Your task to perform on an android device: turn off translation in the chrome app Image 0: 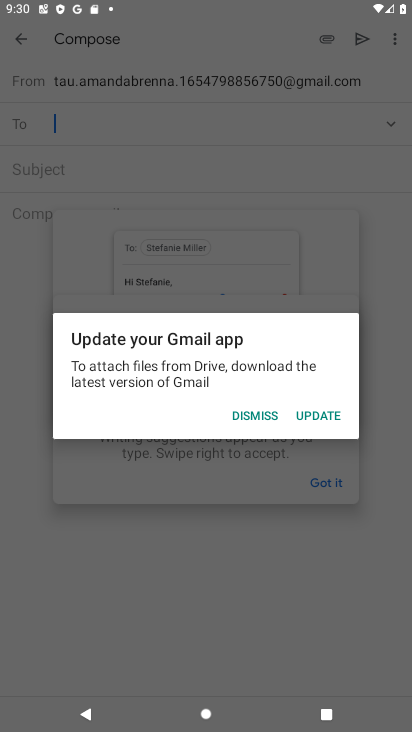
Step 0: press home button
Your task to perform on an android device: turn off translation in the chrome app Image 1: 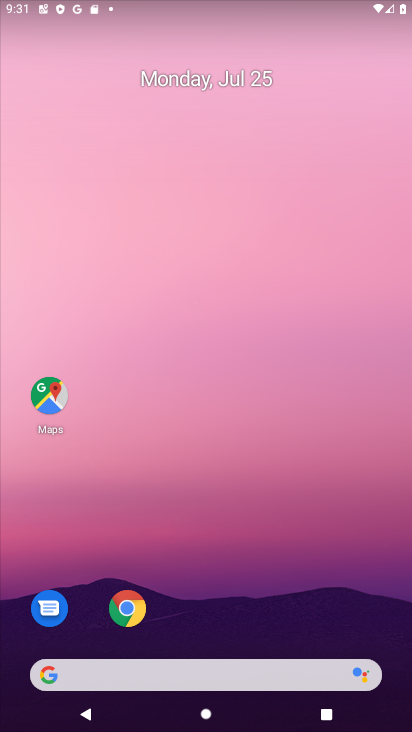
Step 1: click (132, 629)
Your task to perform on an android device: turn off translation in the chrome app Image 2: 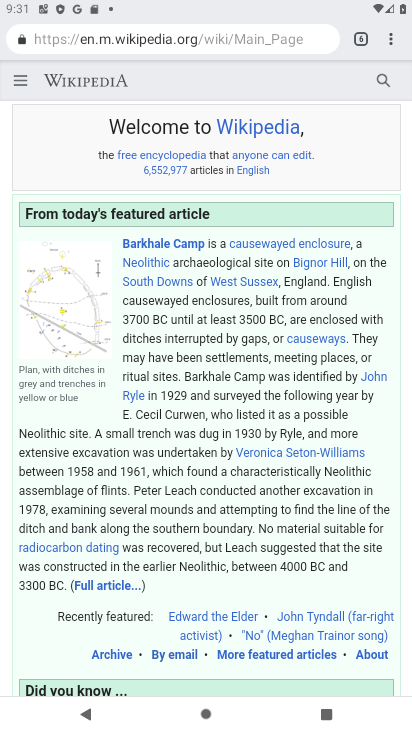
Step 2: click (403, 33)
Your task to perform on an android device: turn off translation in the chrome app Image 3: 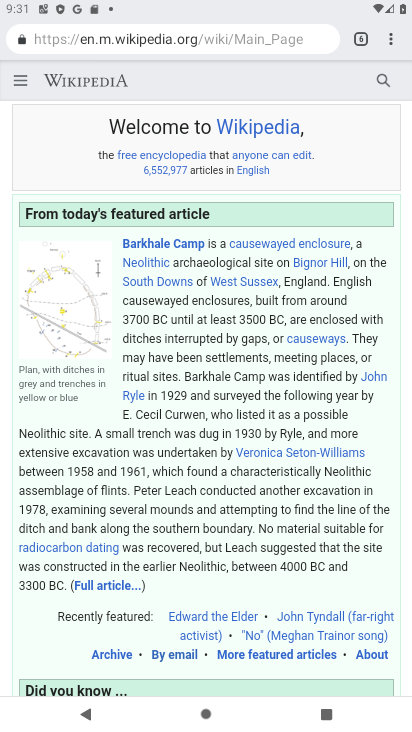
Step 3: click (393, 33)
Your task to perform on an android device: turn off translation in the chrome app Image 4: 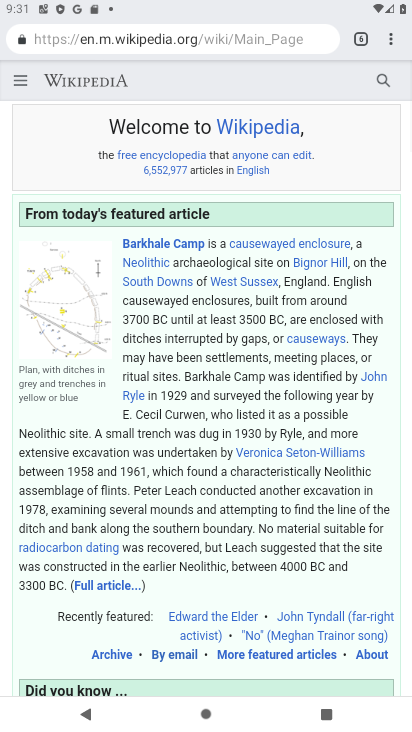
Step 4: click (399, 39)
Your task to perform on an android device: turn off translation in the chrome app Image 5: 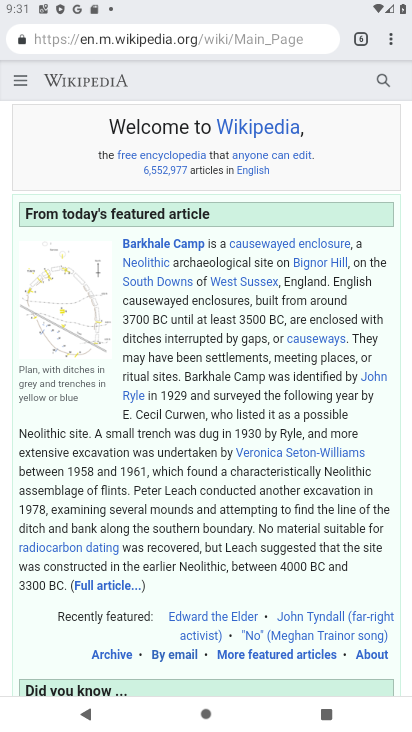
Step 5: click (399, 39)
Your task to perform on an android device: turn off translation in the chrome app Image 6: 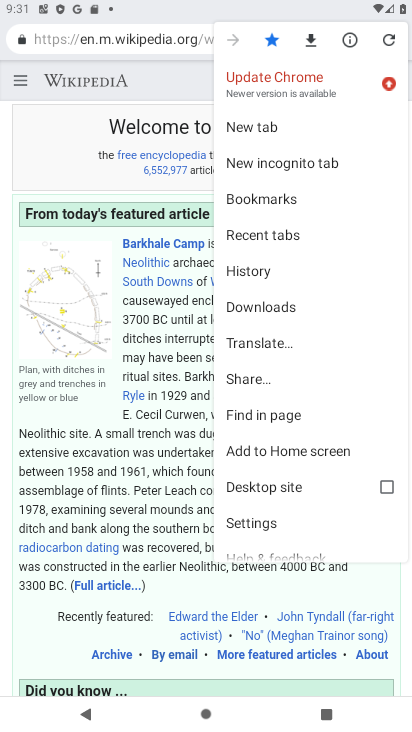
Step 6: click (268, 514)
Your task to perform on an android device: turn off translation in the chrome app Image 7: 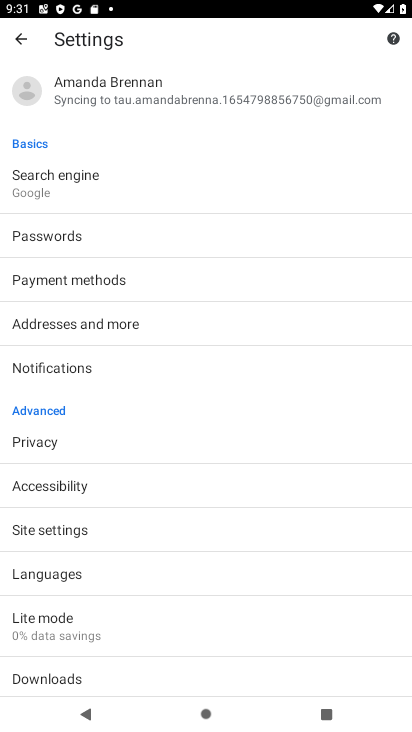
Step 7: click (82, 571)
Your task to perform on an android device: turn off translation in the chrome app Image 8: 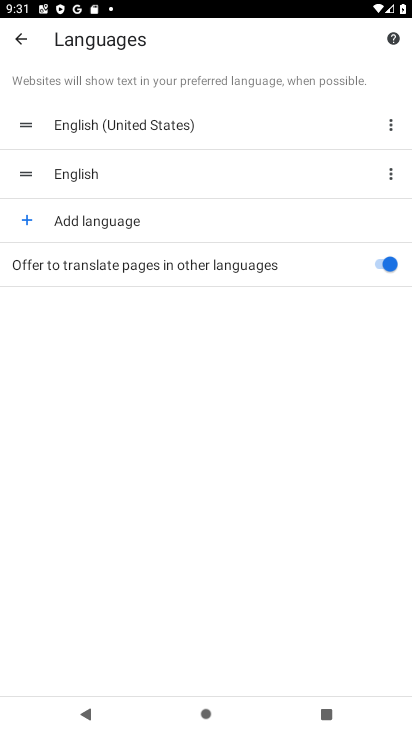
Step 8: click (383, 254)
Your task to perform on an android device: turn off translation in the chrome app Image 9: 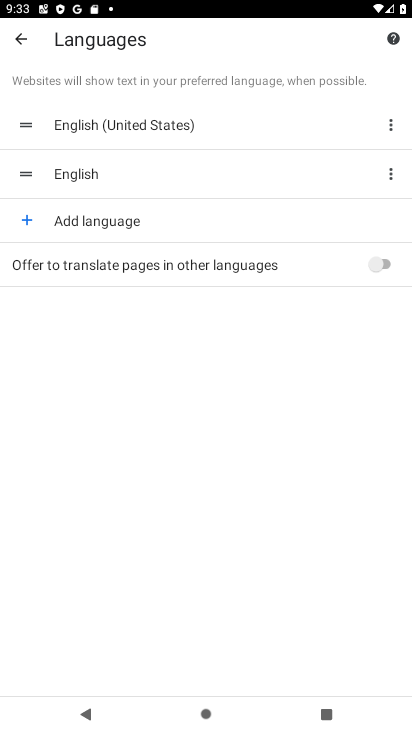
Step 9: task complete